Your task to perform on an android device: open a new tab in the chrome app Image 0: 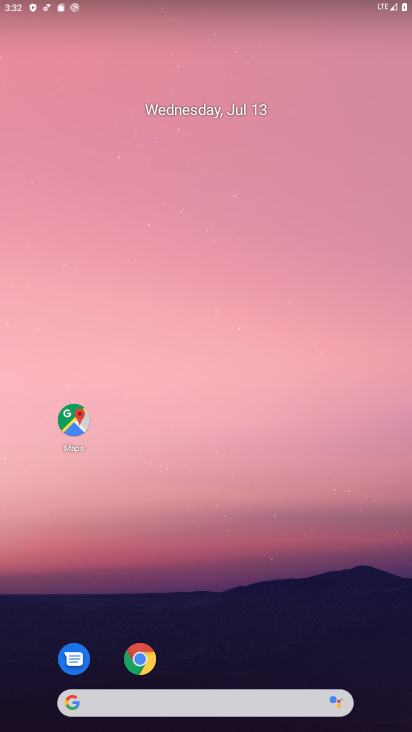
Step 0: click (140, 653)
Your task to perform on an android device: open a new tab in the chrome app Image 1: 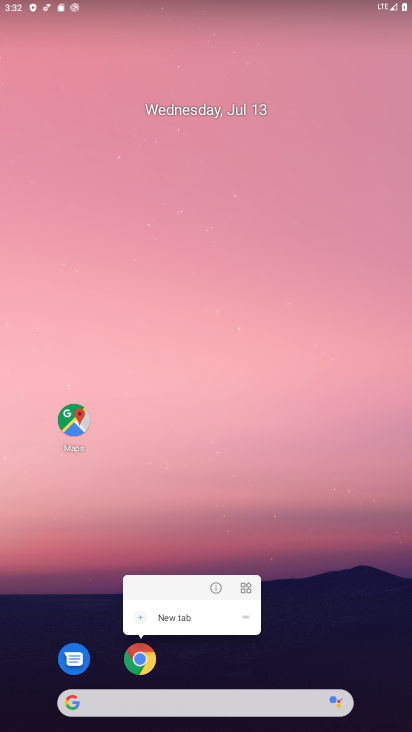
Step 1: click (139, 657)
Your task to perform on an android device: open a new tab in the chrome app Image 2: 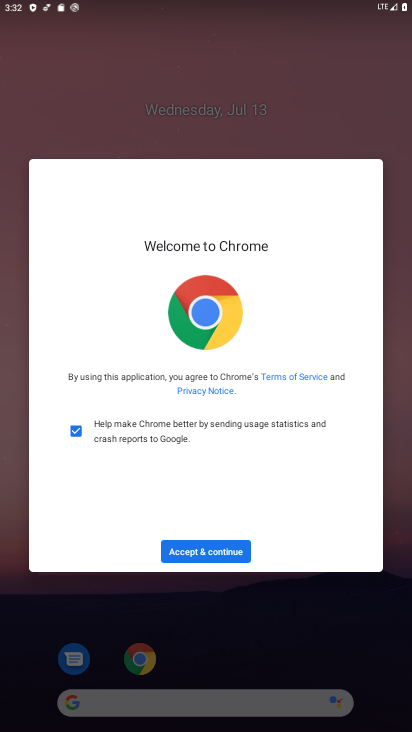
Step 2: click (201, 551)
Your task to perform on an android device: open a new tab in the chrome app Image 3: 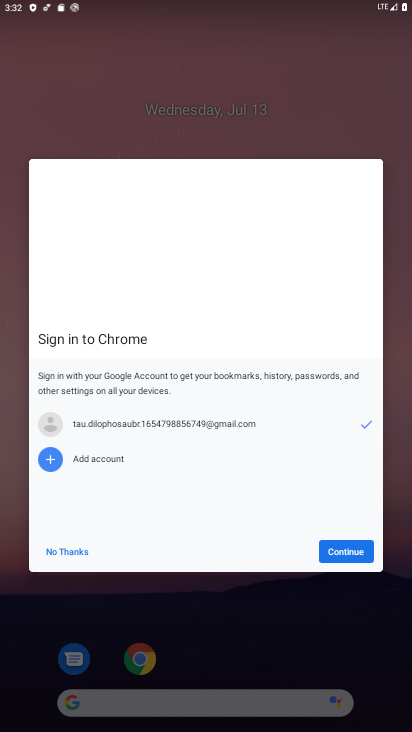
Step 3: click (341, 546)
Your task to perform on an android device: open a new tab in the chrome app Image 4: 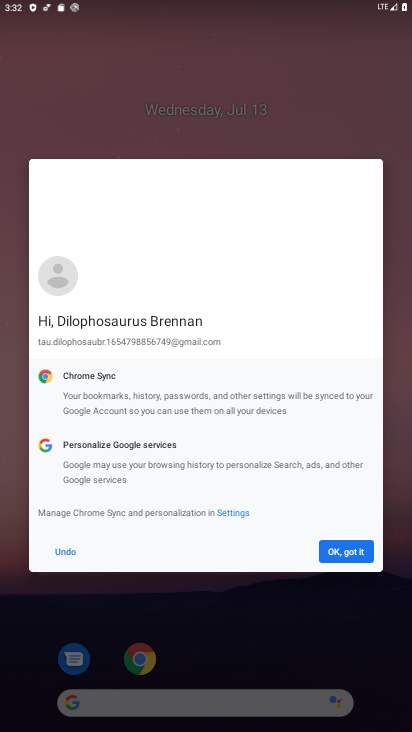
Step 4: click (354, 551)
Your task to perform on an android device: open a new tab in the chrome app Image 5: 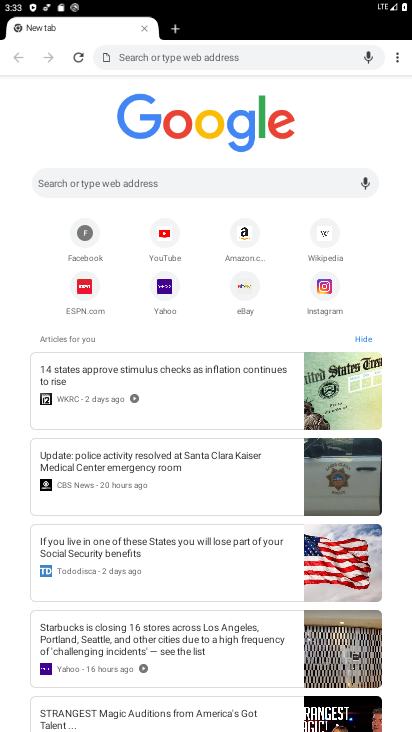
Step 5: click (173, 23)
Your task to perform on an android device: open a new tab in the chrome app Image 6: 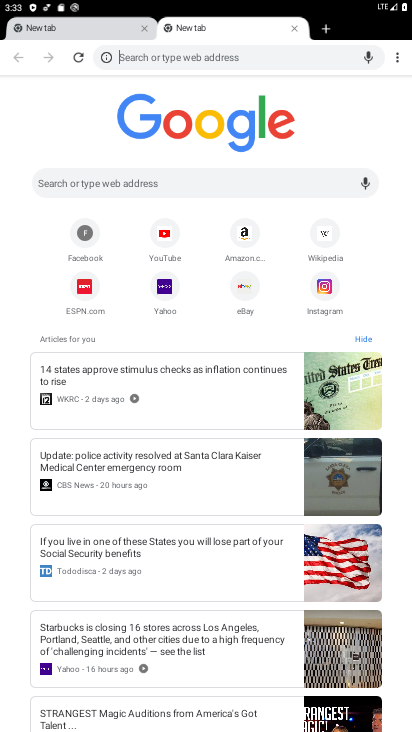
Step 6: task complete